Your task to perform on an android device: open a bookmark in the chrome app Image 0: 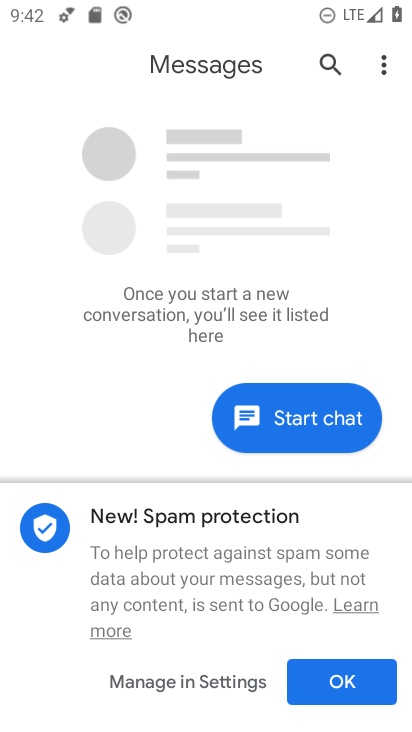
Step 0: press home button
Your task to perform on an android device: open a bookmark in the chrome app Image 1: 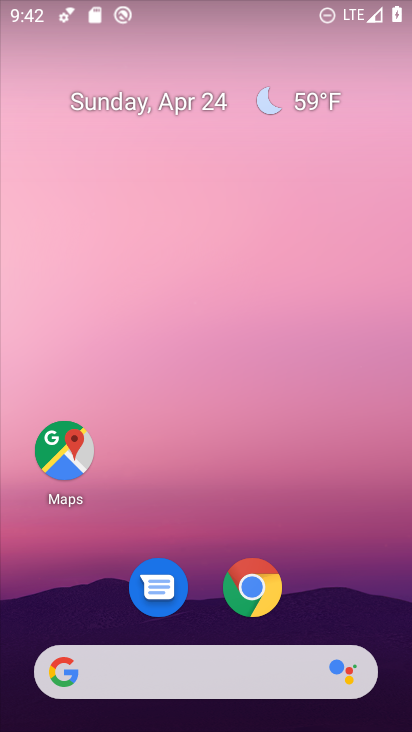
Step 1: click (250, 587)
Your task to perform on an android device: open a bookmark in the chrome app Image 2: 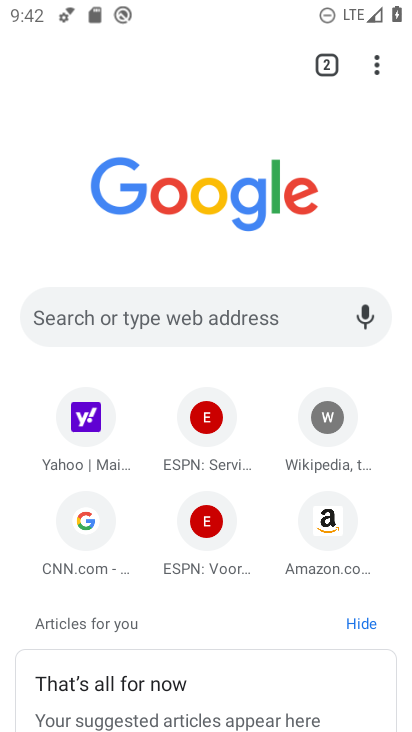
Step 2: click (377, 63)
Your task to perform on an android device: open a bookmark in the chrome app Image 3: 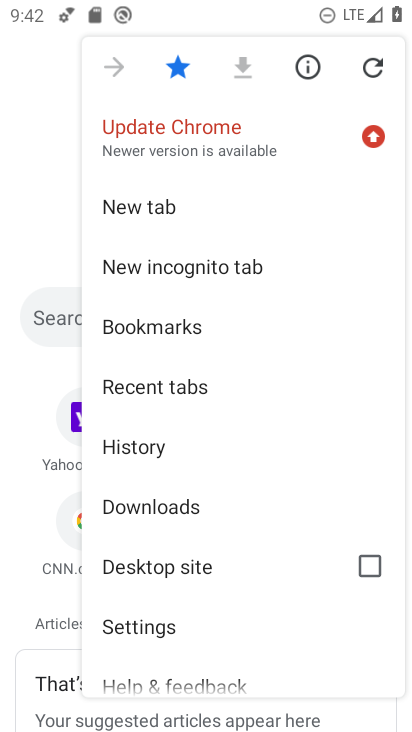
Step 3: click (183, 332)
Your task to perform on an android device: open a bookmark in the chrome app Image 4: 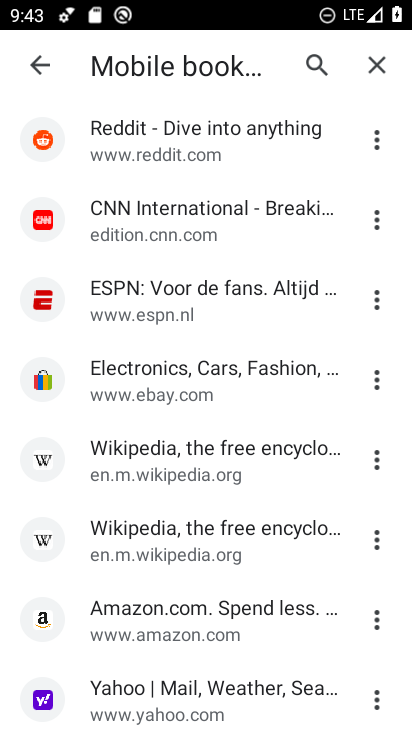
Step 4: task complete